Your task to perform on an android device: Clear the shopping cart on ebay.com. Search for razer naga on ebay.com, select the first entry, add it to the cart, then select checkout. Image 0: 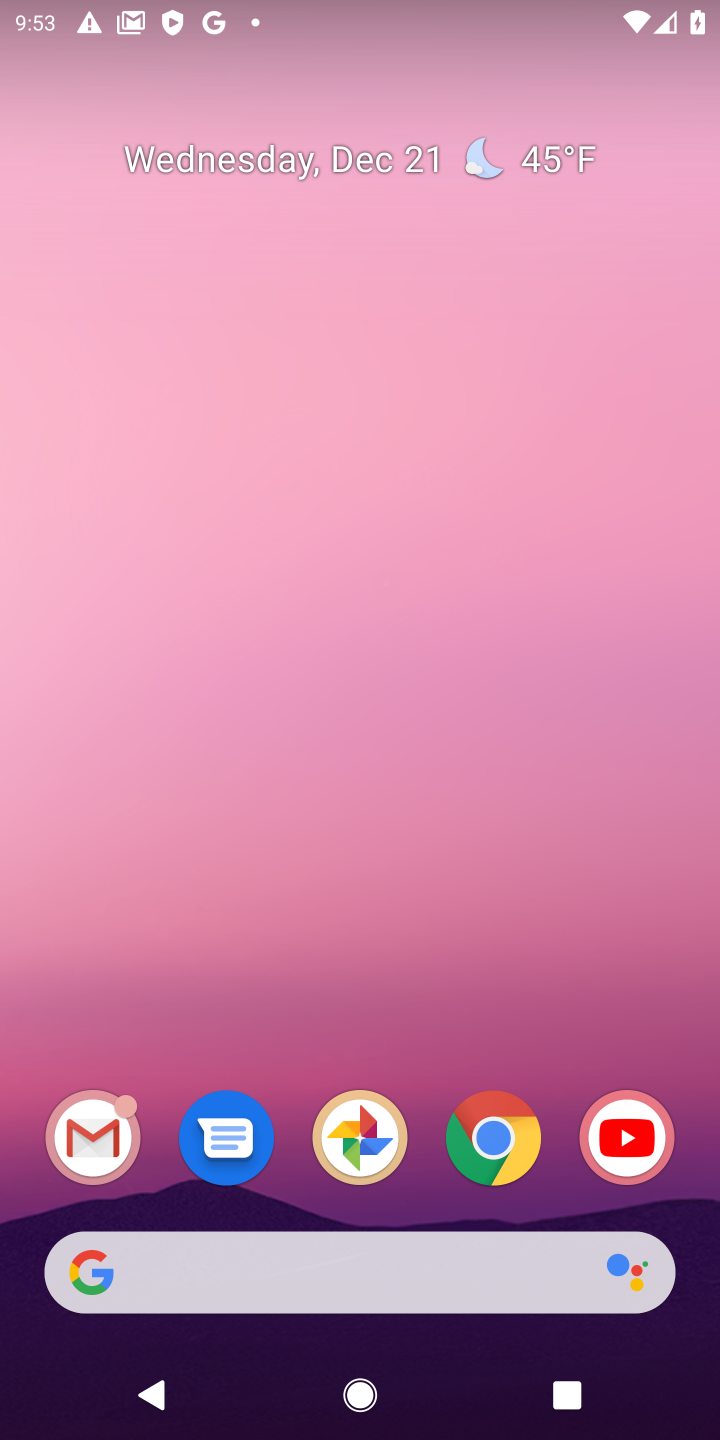
Step 0: click (490, 1148)
Your task to perform on an android device: Clear the shopping cart on ebay.com. Search for razer naga on ebay.com, select the first entry, add it to the cart, then select checkout. Image 1: 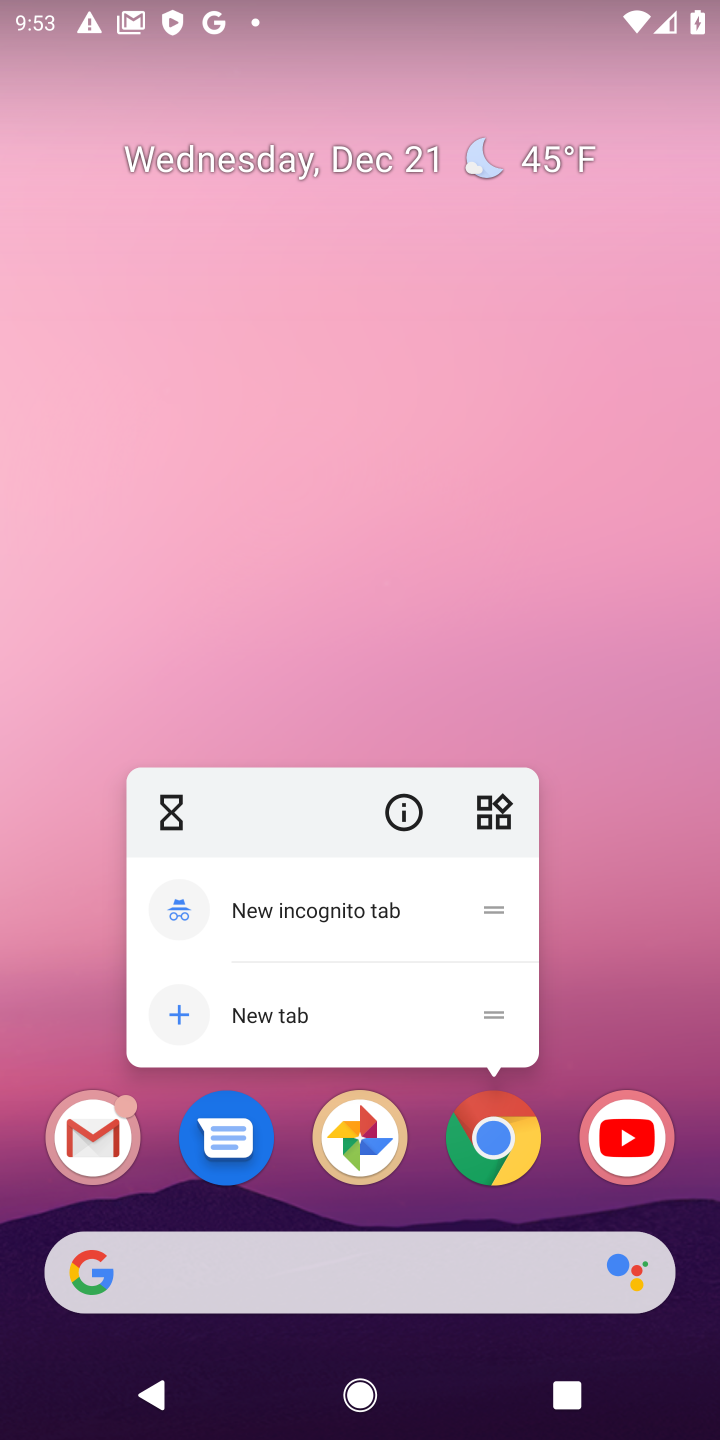
Step 1: click (490, 1148)
Your task to perform on an android device: Clear the shopping cart on ebay.com. Search for razer naga on ebay.com, select the first entry, add it to the cart, then select checkout. Image 2: 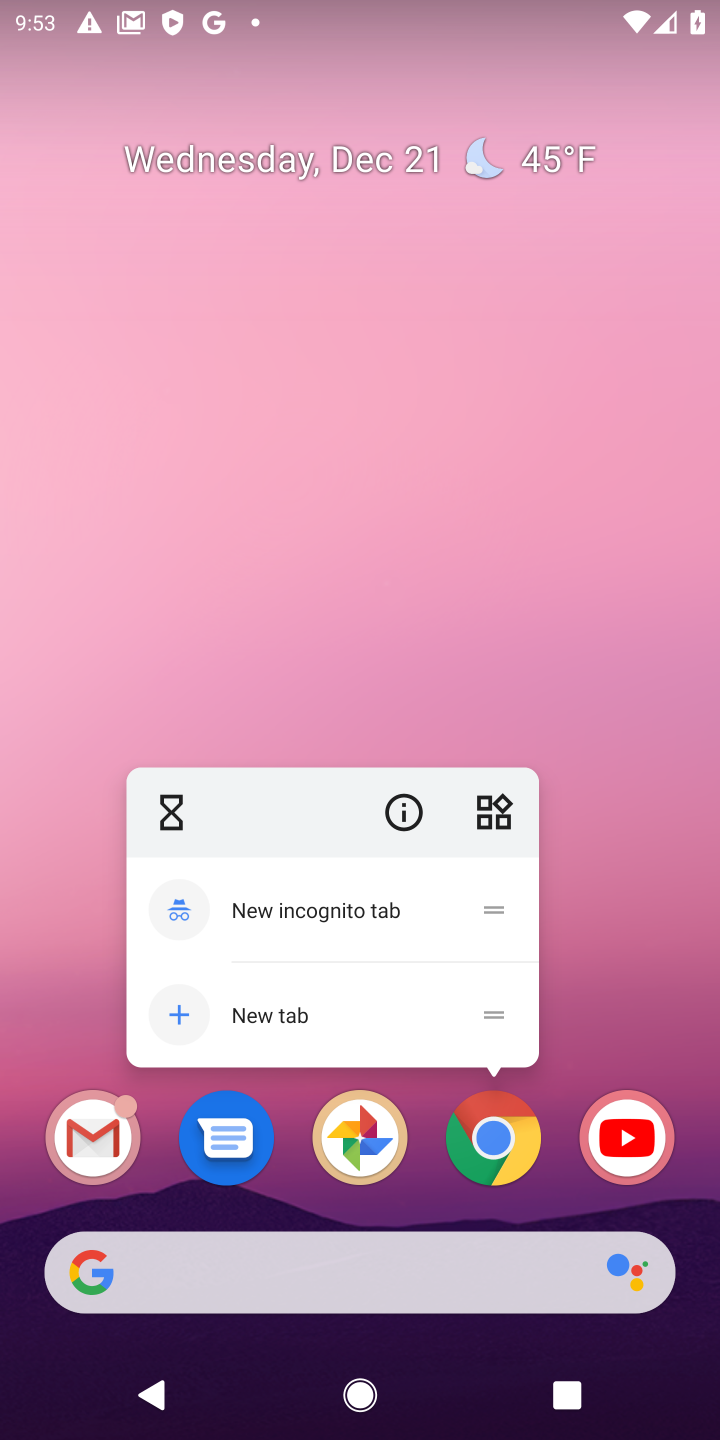
Step 2: click (490, 1149)
Your task to perform on an android device: Clear the shopping cart on ebay.com. Search for razer naga on ebay.com, select the first entry, add it to the cart, then select checkout. Image 3: 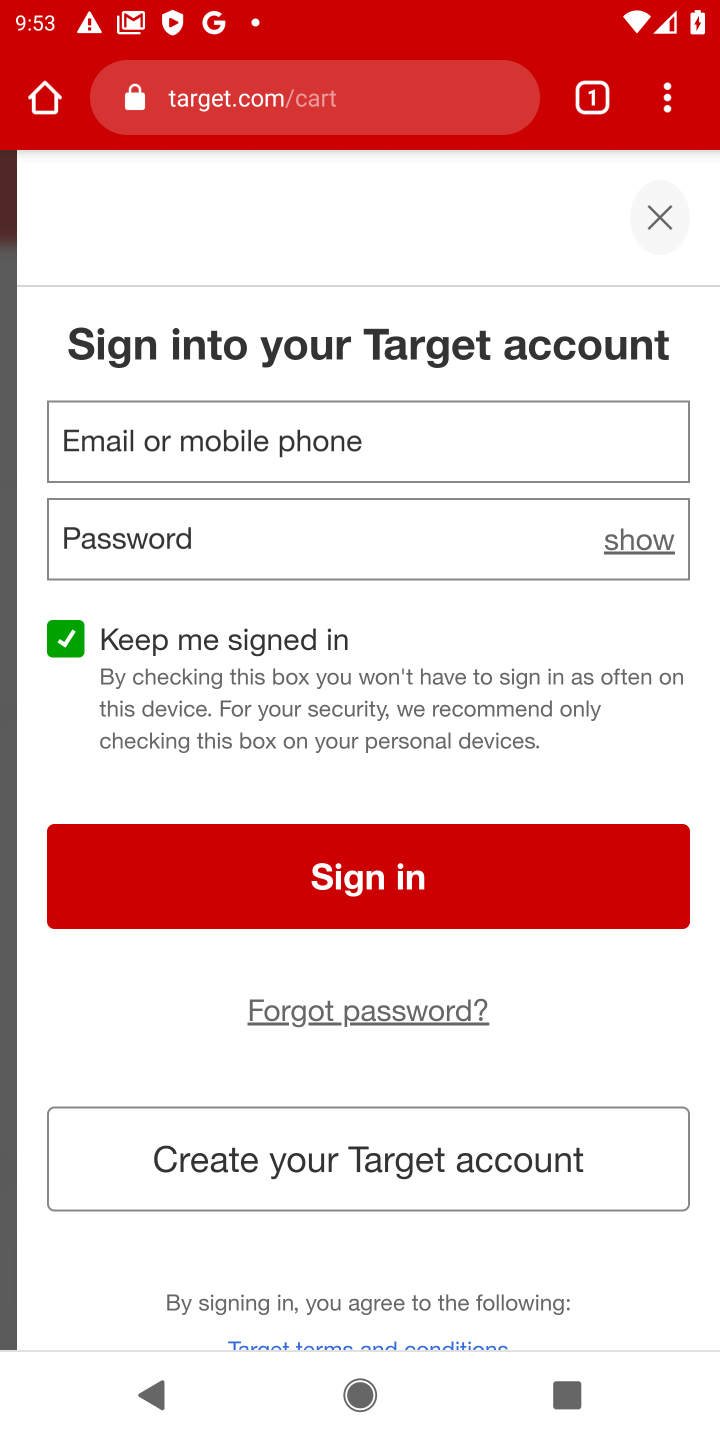
Step 3: click (240, 96)
Your task to perform on an android device: Clear the shopping cart on ebay.com. Search for razer naga on ebay.com, select the first entry, add it to the cart, then select checkout. Image 4: 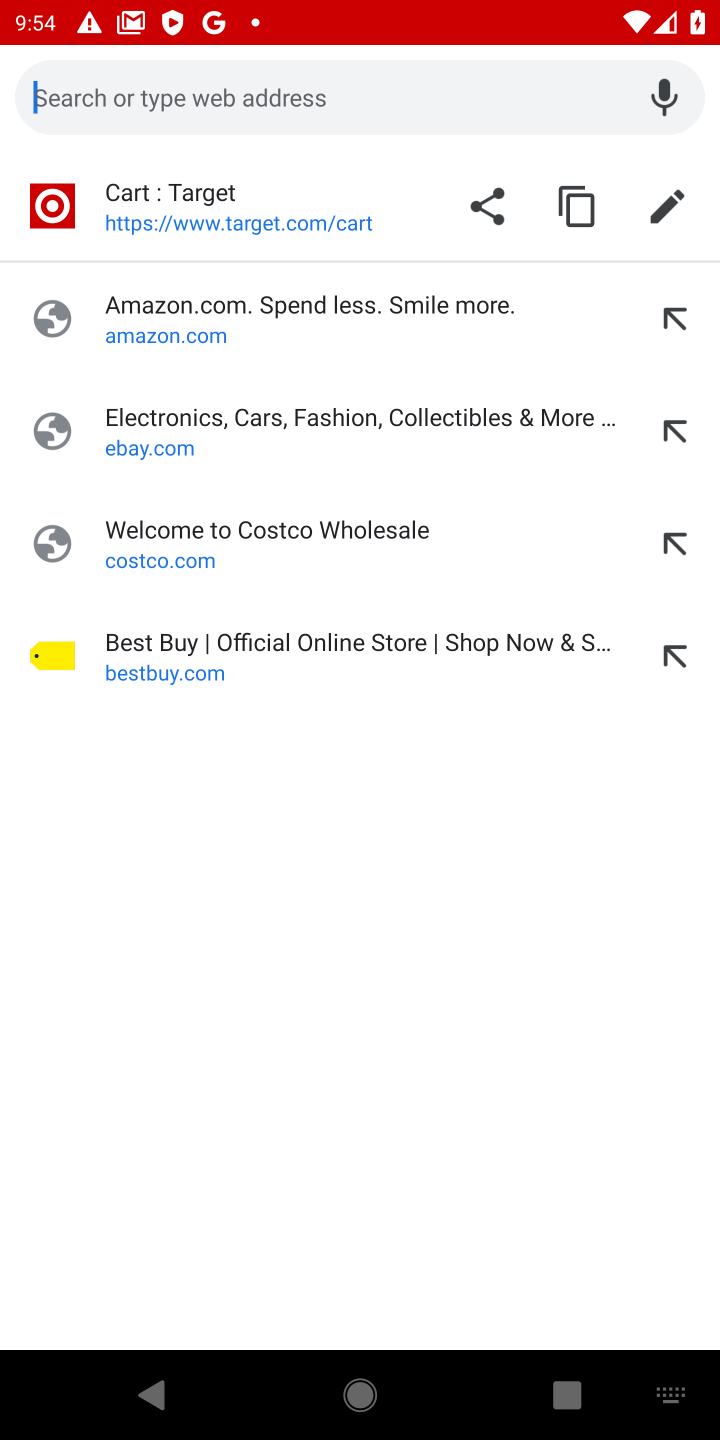
Step 4: click (136, 425)
Your task to perform on an android device: Clear the shopping cart on ebay.com. Search for razer naga on ebay.com, select the first entry, add it to the cart, then select checkout. Image 5: 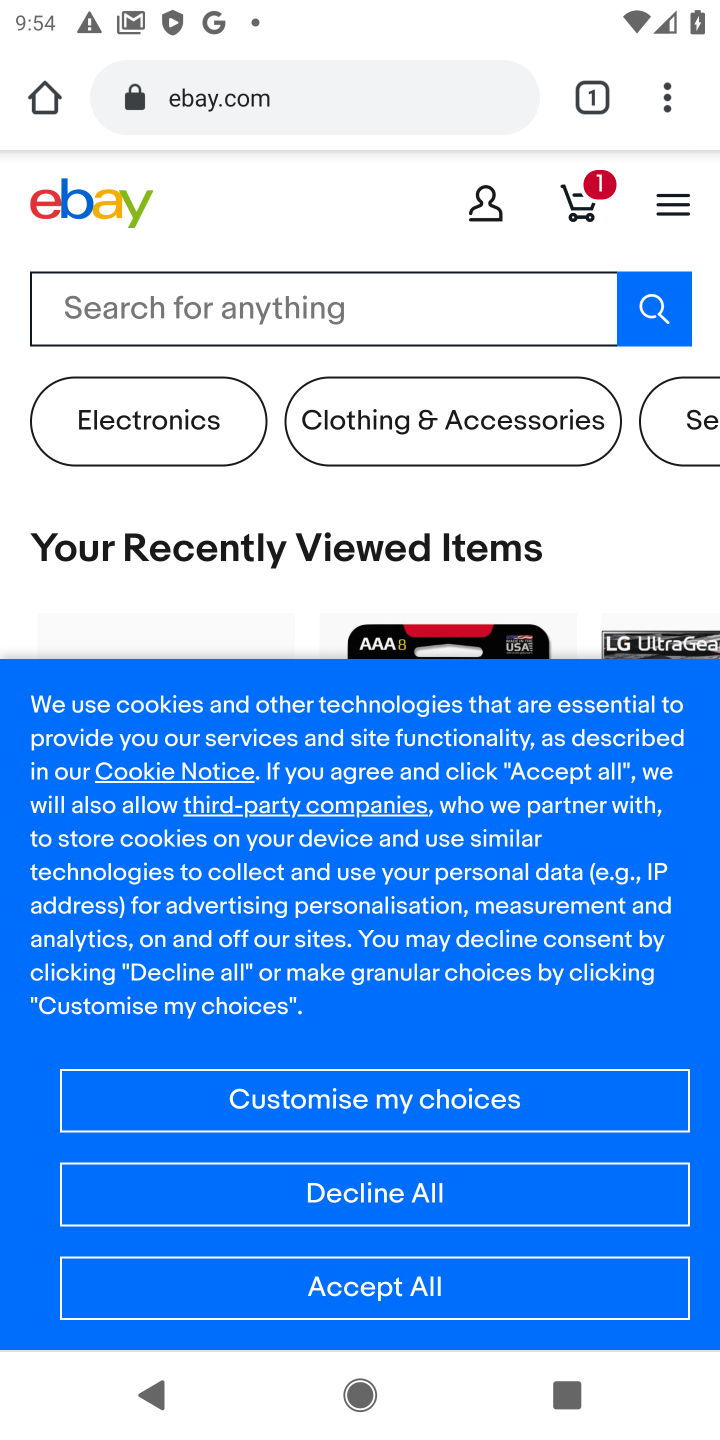
Step 5: click (583, 208)
Your task to perform on an android device: Clear the shopping cart on ebay.com. Search for razer naga on ebay.com, select the first entry, add it to the cart, then select checkout. Image 6: 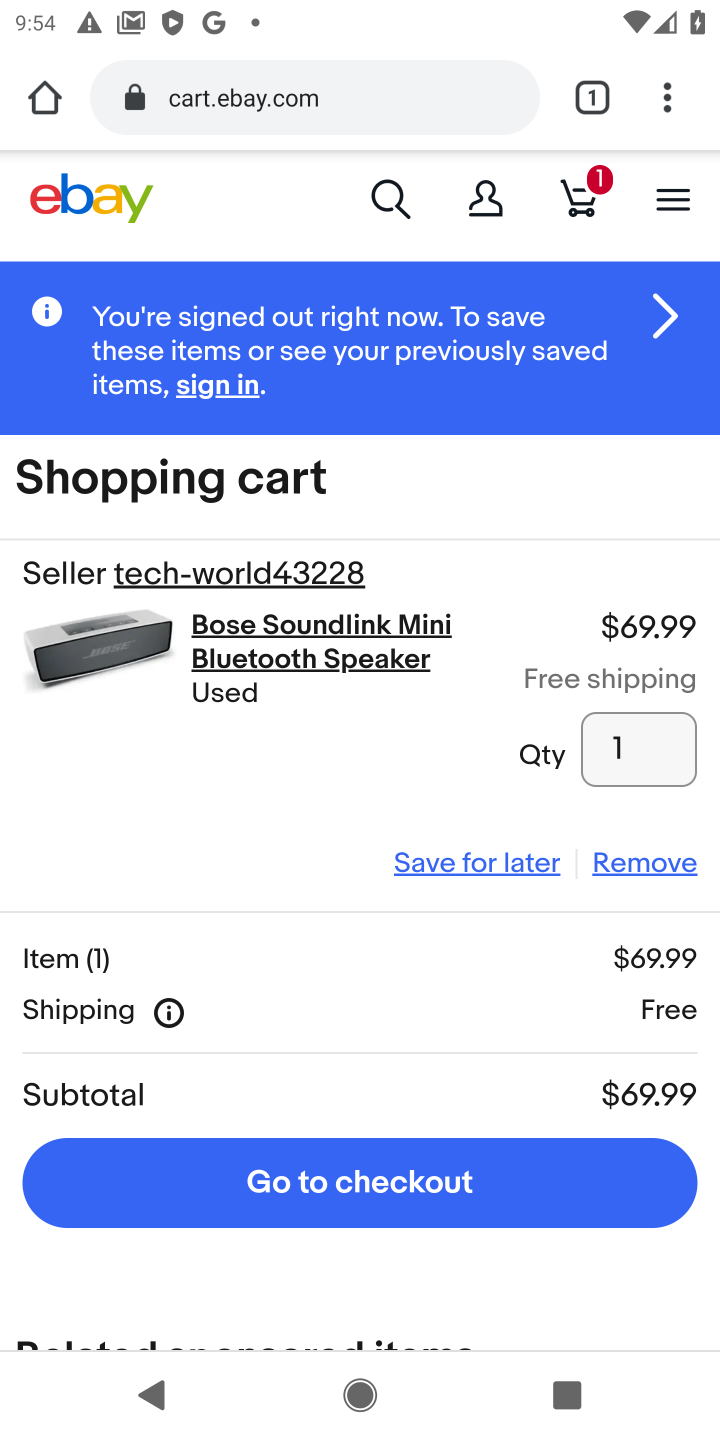
Step 6: click (608, 857)
Your task to perform on an android device: Clear the shopping cart on ebay.com. Search for razer naga on ebay.com, select the first entry, add it to the cart, then select checkout. Image 7: 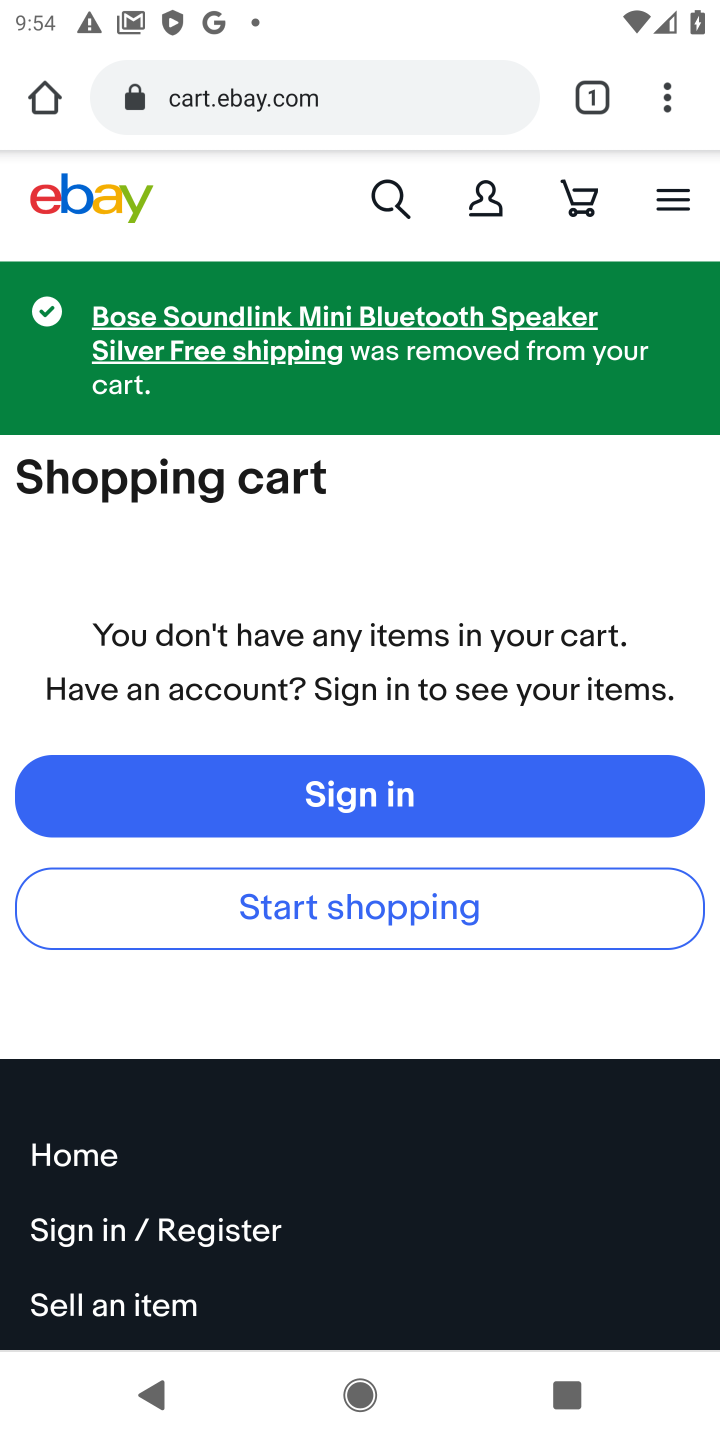
Step 7: click (376, 191)
Your task to perform on an android device: Clear the shopping cart on ebay.com. Search for razer naga on ebay.com, select the first entry, add it to the cart, then select checkout. Image 8: 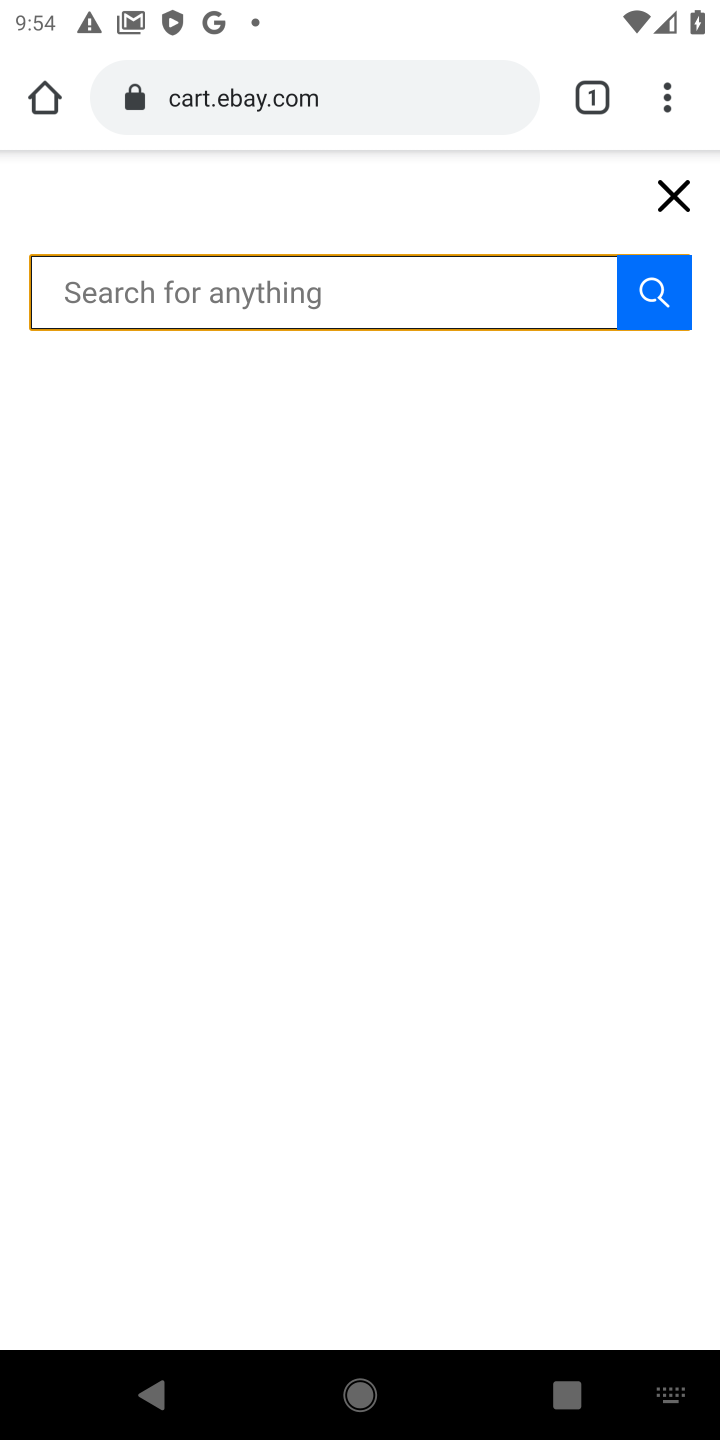
Step 8: type " razer naga"
Your task to perform on an android device: Clear the shopping cart on ebay.com. Search for razer naga on ebay.com, select the first entry, add it to the cart, then select checkout. Image 9: 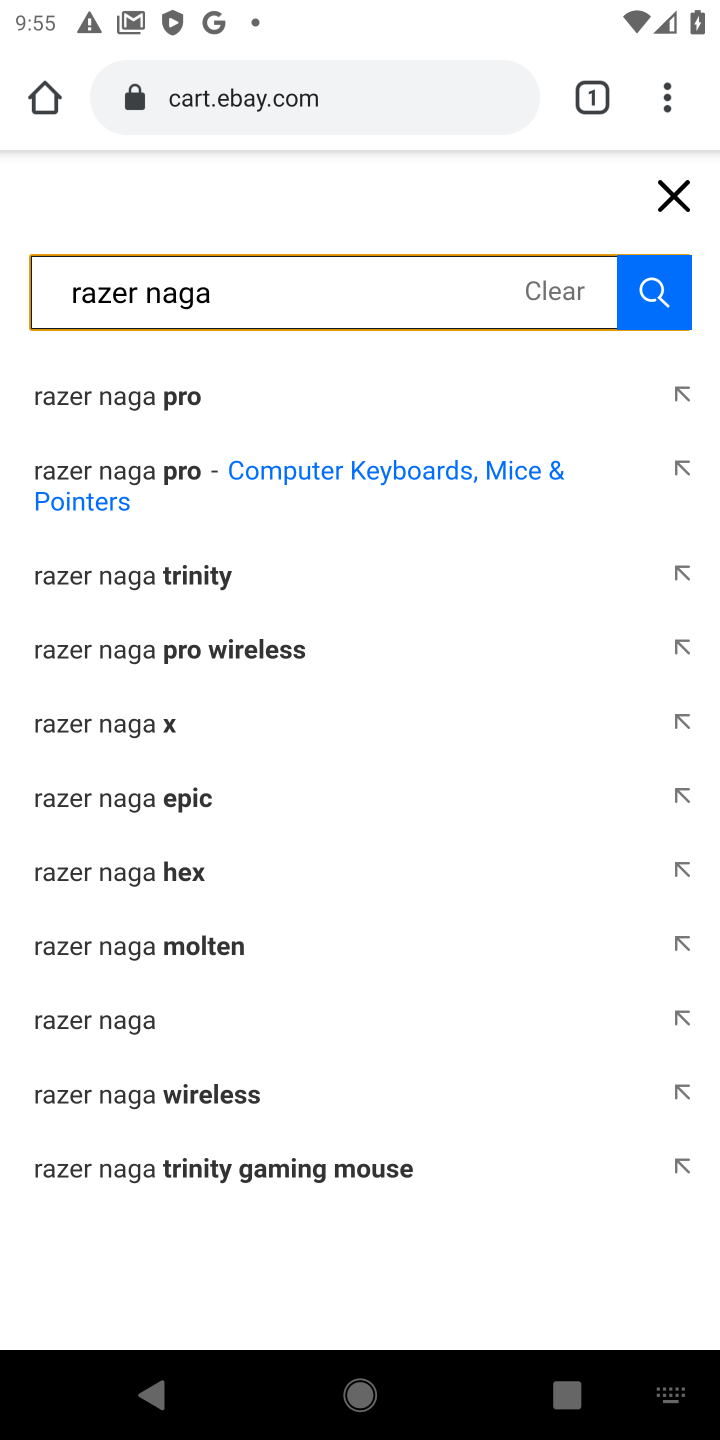
Step 9: click (114, 1024)
Your task to perform on an android device: Clear the shopping cart on ebay.com. Search for razer naga on ebay.com, select the first entry, add it to the cart, then select checkout. Image 10: 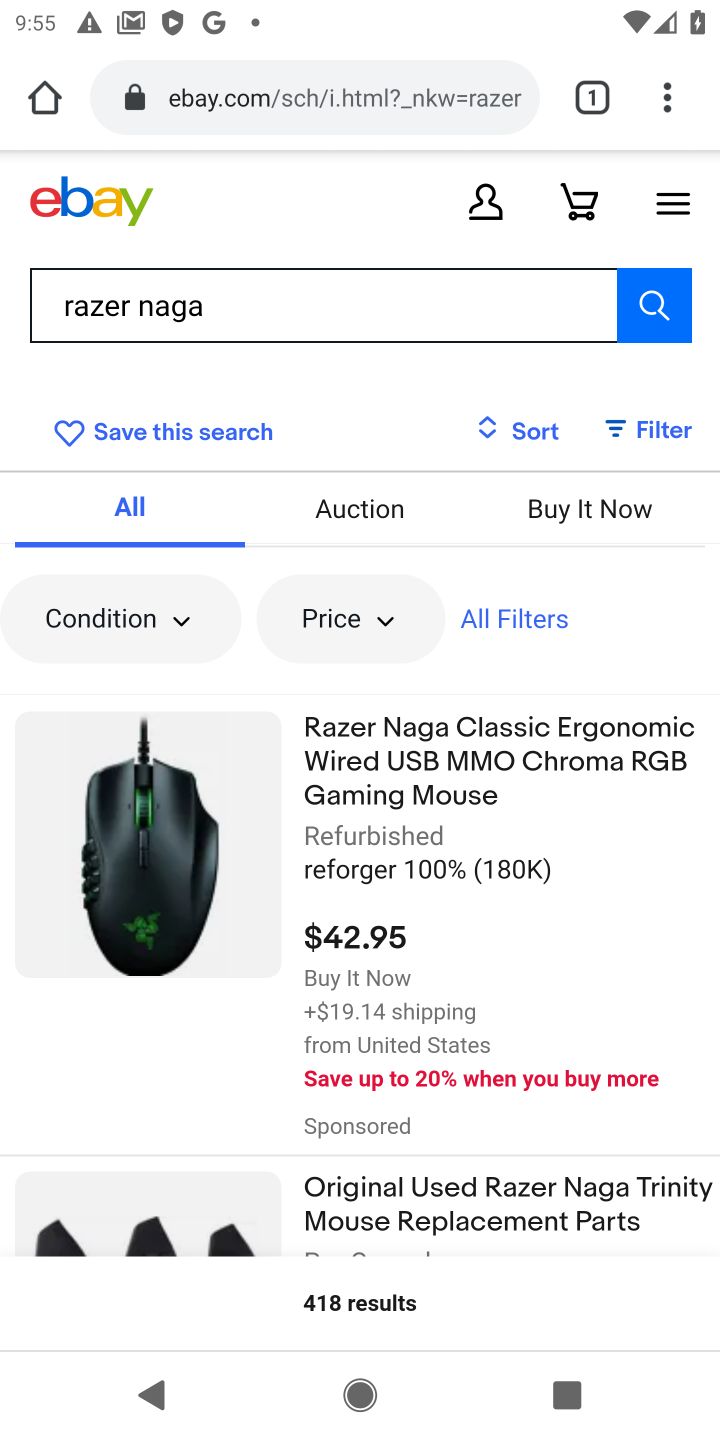
Step 10: click (418, 774)
Your task to perform on an android device: Clear the shopping cart on ebay.com. Search for razer naga on ebay.com, select the first entry, add it to the cart, then select checkout. Image 11: 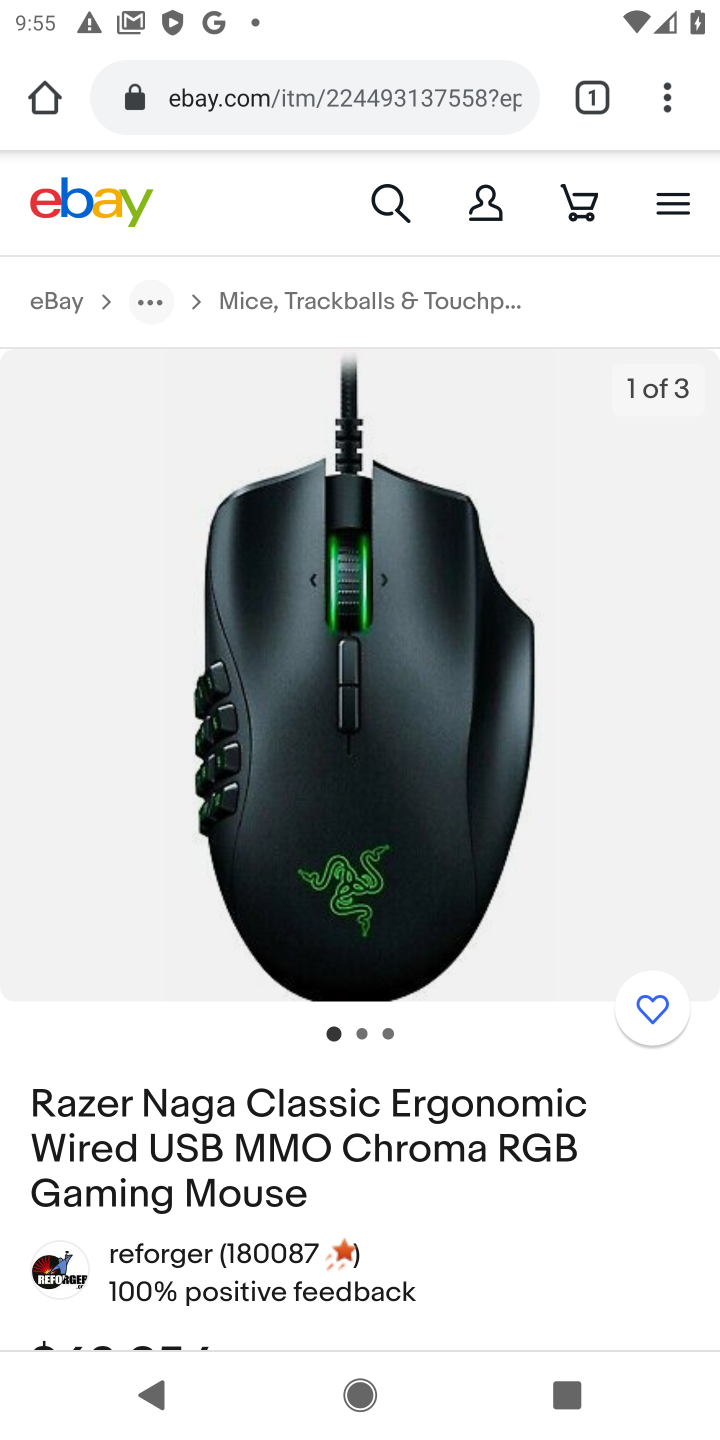
Step 11: drag from (396, 1077) to (408, 312)
Your task to perform on an android device: Clear the shopping cart on ebay.com. Search for razer naga on ebay.com, select the first entry, add it to the cart, then select checkout. Image 12: 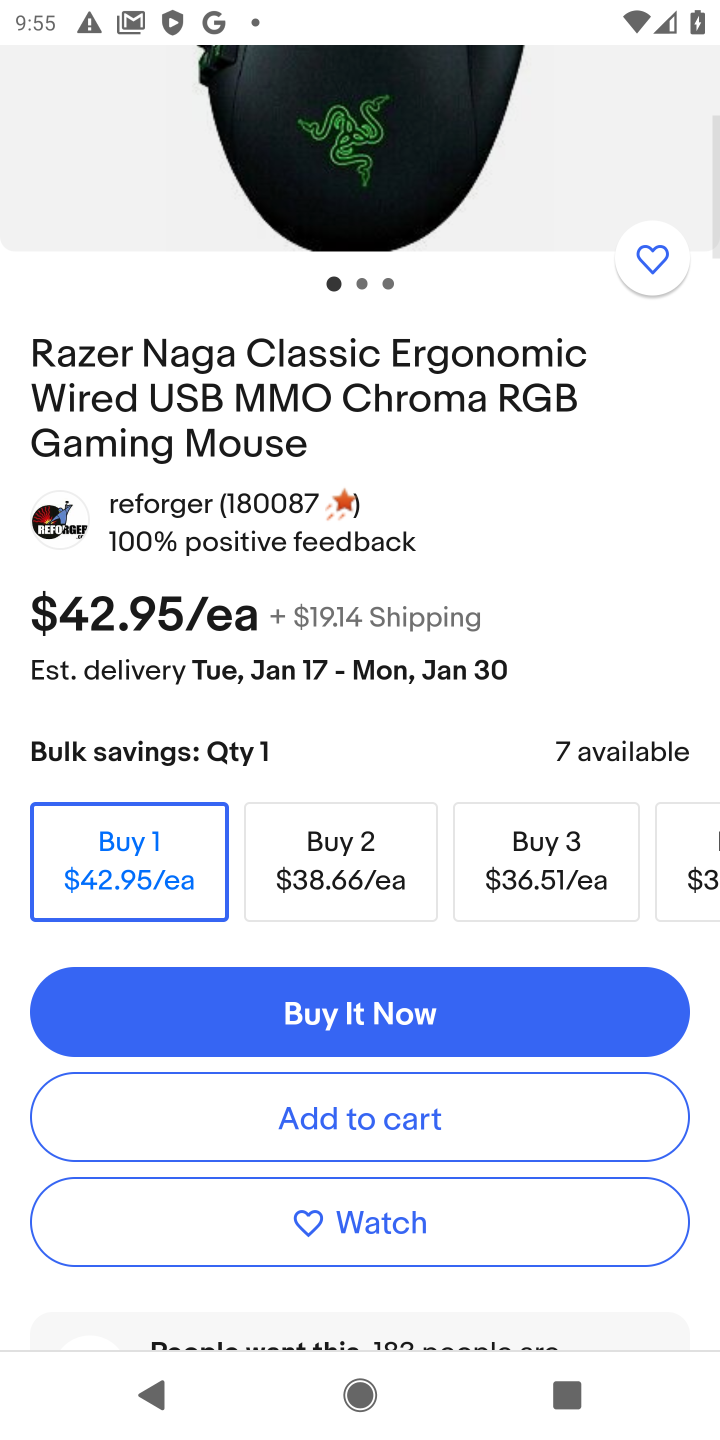
Step 12: drag from (370, 819) to (363, 542)
Your task to perform on an android device: Clear the shopping cart on ebay.com. Search for razer naga on ebay.com, select the first entry, add it to the cart, then select checkout. Image 13: 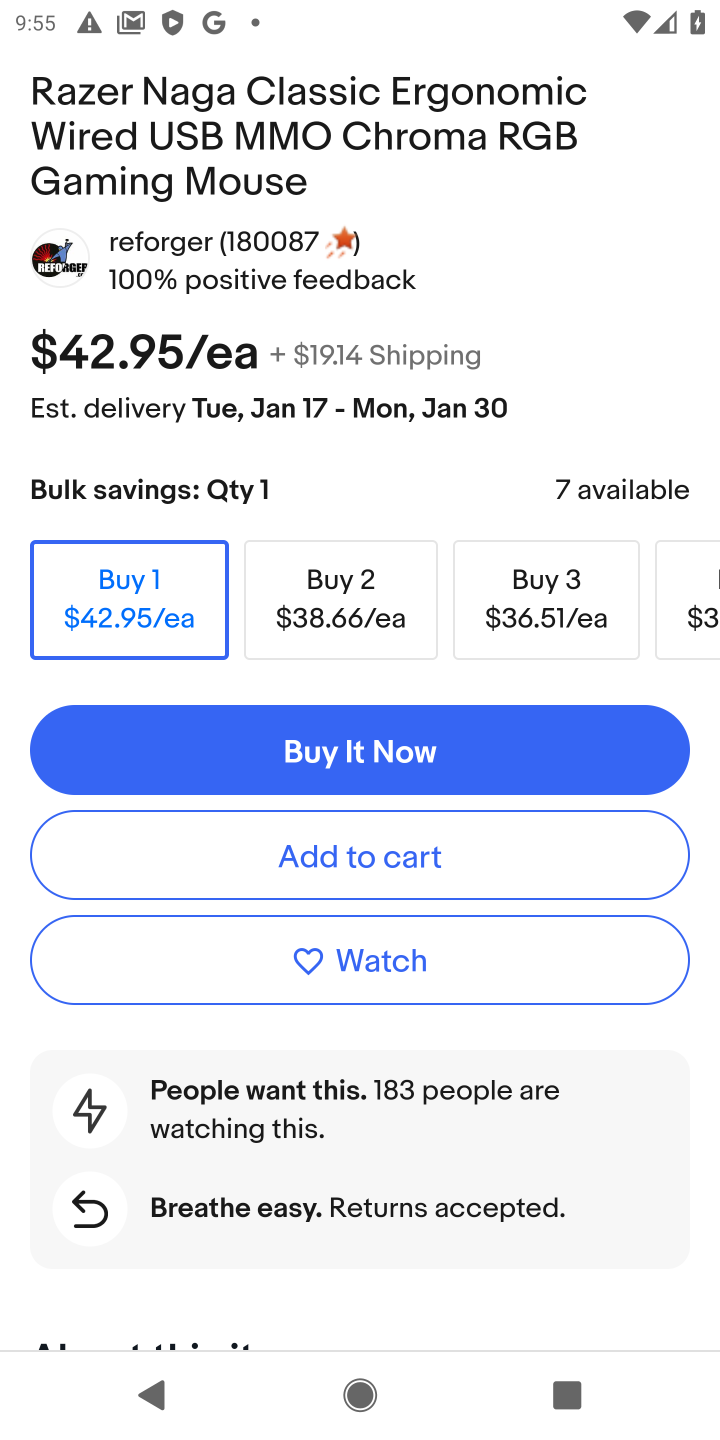
Step 13: click (326, 854)
Your task to perform on an android device: Clear the shopping cart on ebay.com. Search for razer naga on ebay.com, select the first entry, add it to the cart, then select checkout. Image 14: 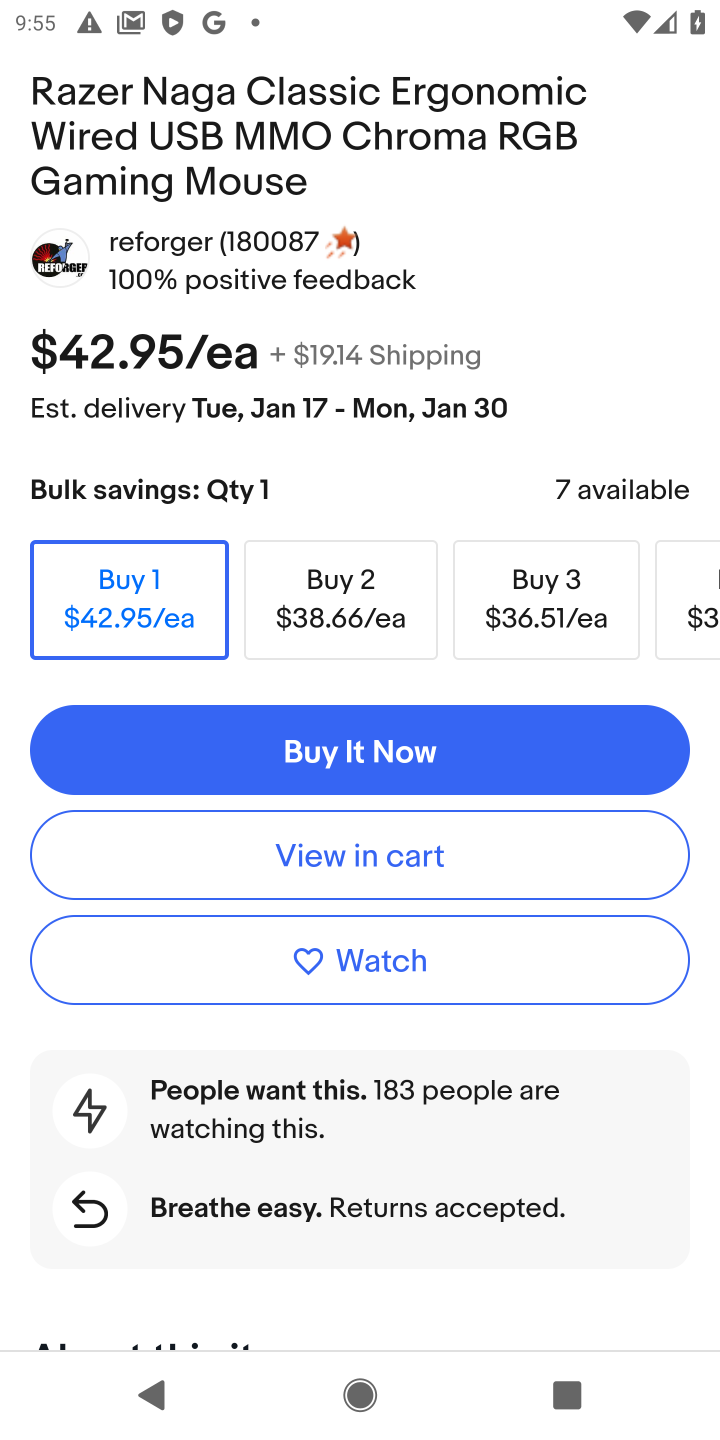
Step 14: click (326, 854)
Your task to perform on an android device: Clear the shopping cart on ebay.com. Search for razer naga on ebay.com, select the first entry, add it to the cart, then select checkout. Image 15: 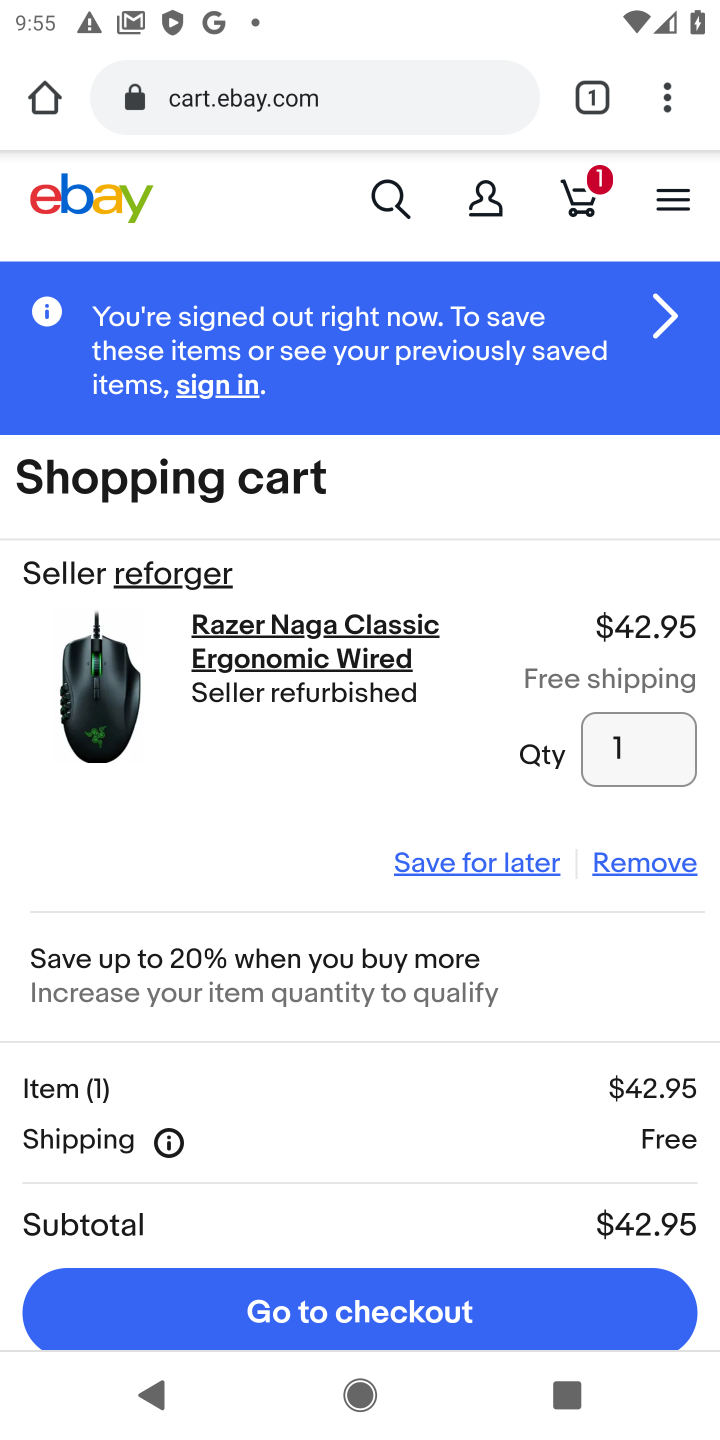
Step 15: click (353, 1296)
Your task to perform on an android device: Clear the shopping cart on ebay.com. Search for razer naga on ebay.com, select the first entry, add it to the cart, then select checkout. Image 16: 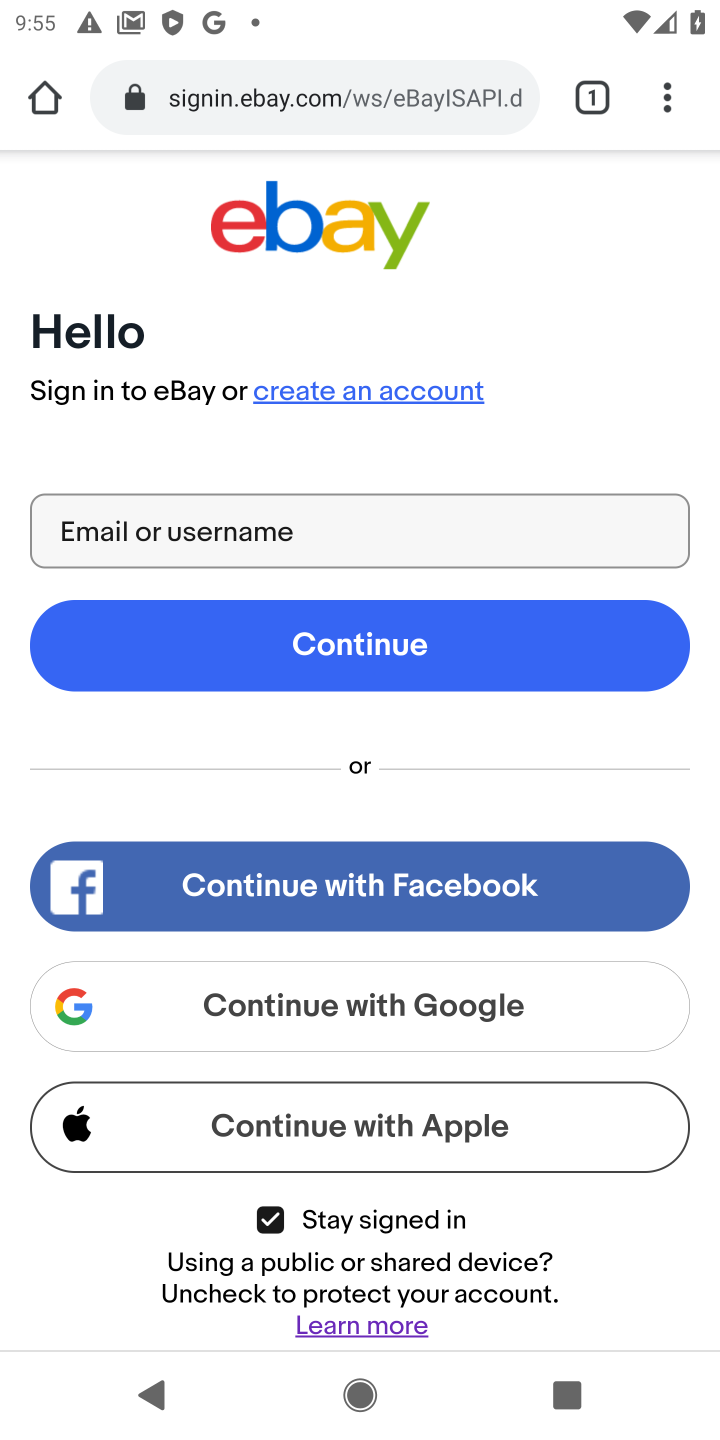
Step 16: task complete